Your task to perform on an android device: turn on notifications settings in the gmail app Image 0: 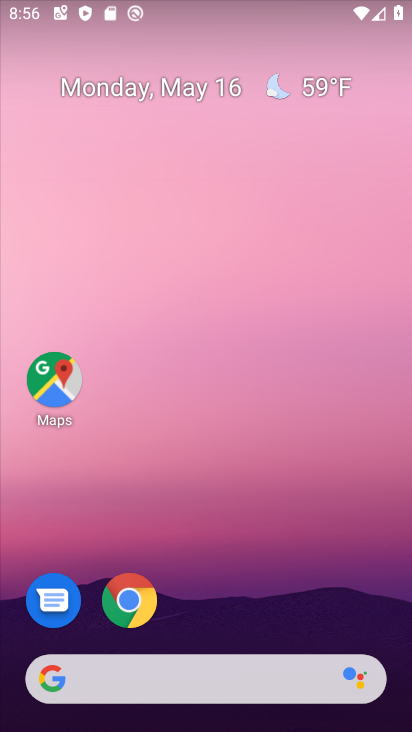
Step 0: drag from (229, 653) to (273, 341)
Your task to perform on an android device: turn on notifications settings in the gmail app Image 1: 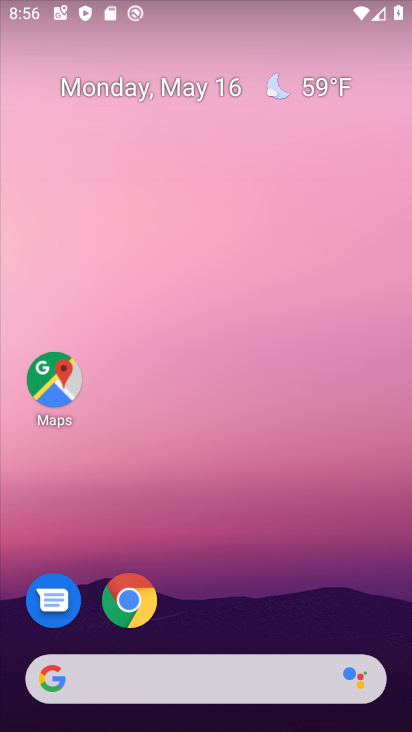
Step 1: drag from (209, 668) to (182, 209)
Your task to perform on an android device: turn on notifications settings in the gmail app Image 2: 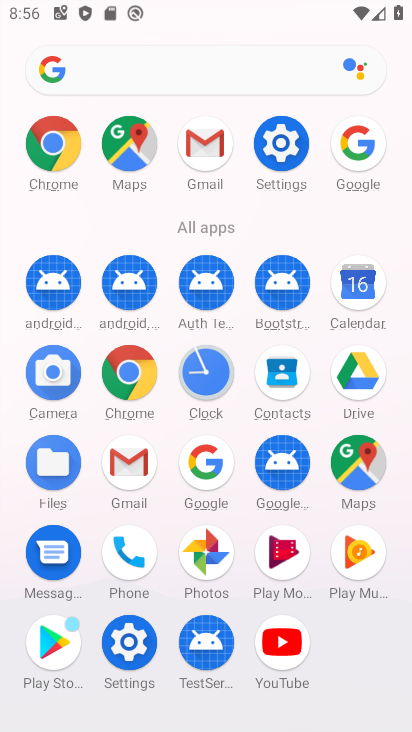
Step 2: click (216, 132)
Your task to perform on an android device: turn on notifications settings in the gmail app Image 3: 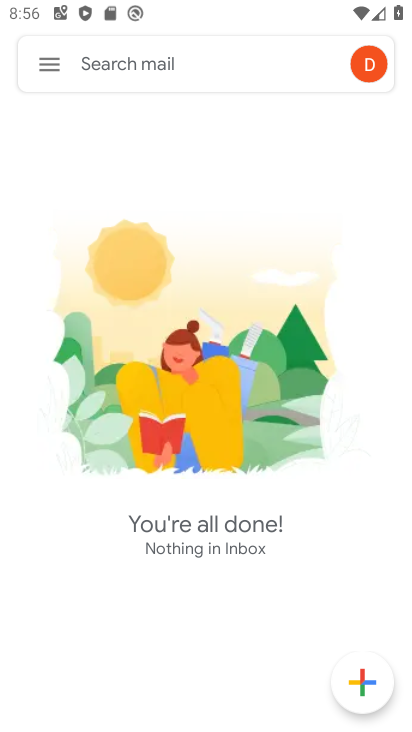
Step 3: click (52, 61)
Your task to perform on an android device: turn on notifications settings in the gmail app Image 4: 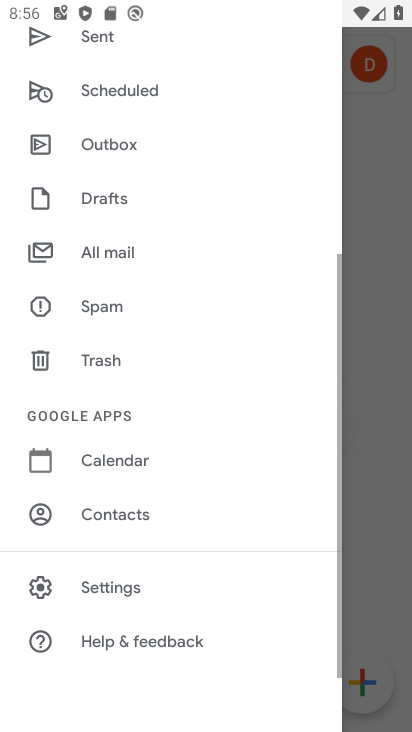
Step 4: click (138, 586)
Your task to perform on an android device: turn on notifications settings in the gmail app Image 5: 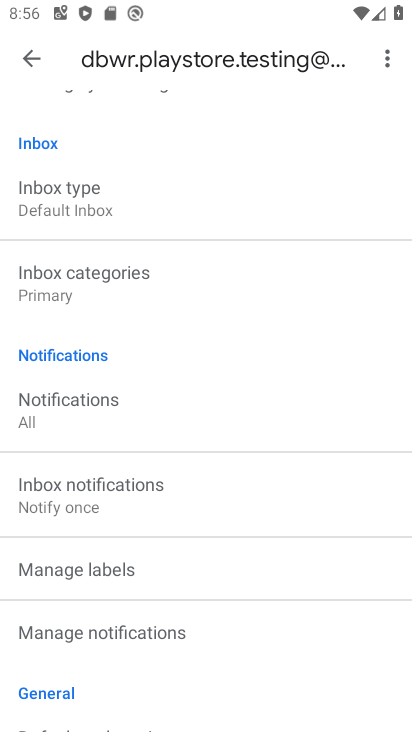
Step 5: click (28, 56)
Your task to perform on an android device: turn on notifications settings in the gmail app Image 6: 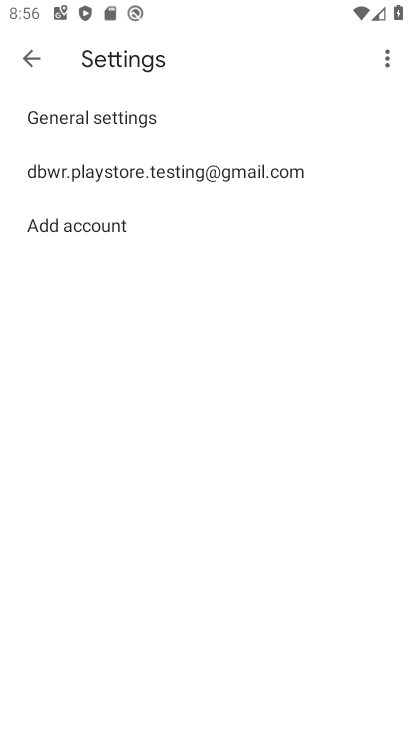
Step 6: click (83, 110)
Your task to perform on an android device: turn on notifications settings in the gmail app Image 7: 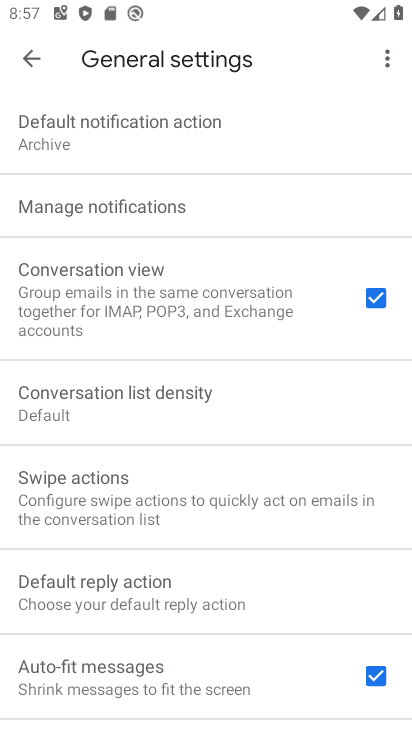
Step 7: click (90, 204)
Your task to perform on an android device: turn on notifications settings in the gmail app Image 8: 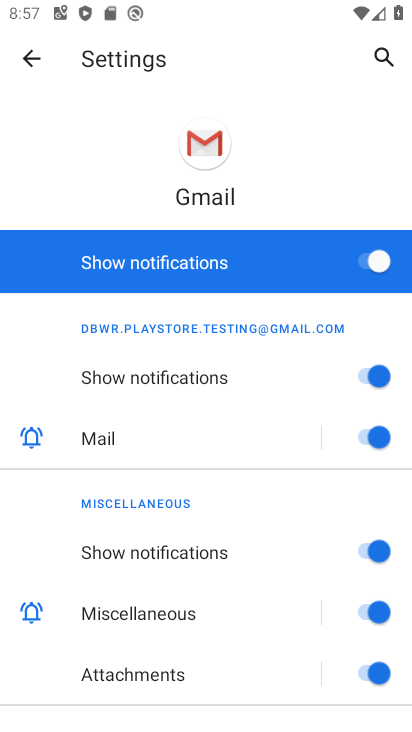
Step 8: task complete